Your task to perform on an android device: toggle notifications settings in the gmail app Image 0: 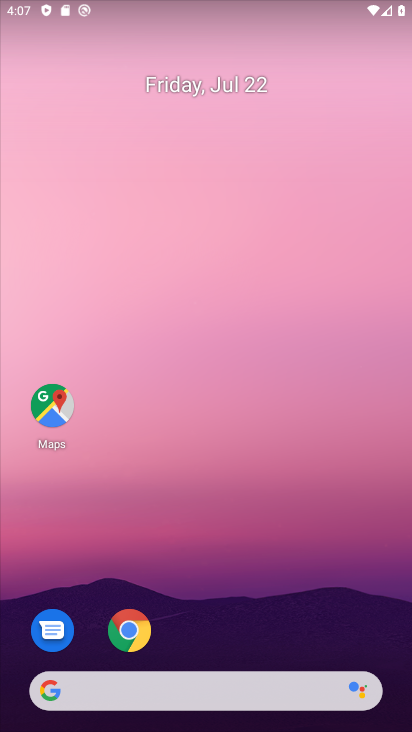
Step 0: drag from (187, 638) to (283, 53)
Your task to perform on an android device: toggle notifications settings in the gmail app Image 1: 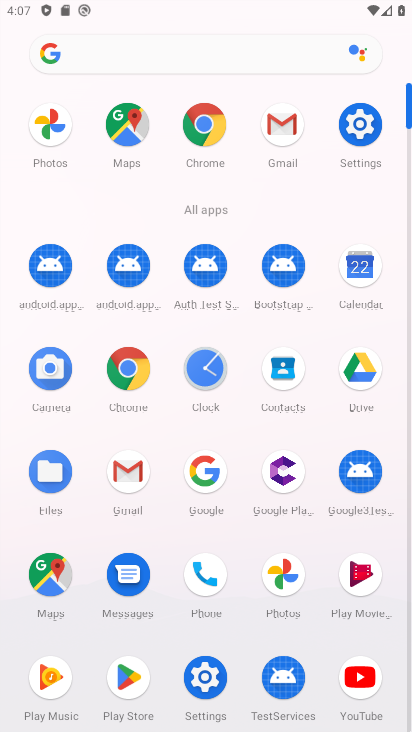
Step 1: click (275, 123)
Your task to perform on an android device: toggle notifications settings in the gmail app Image 2: 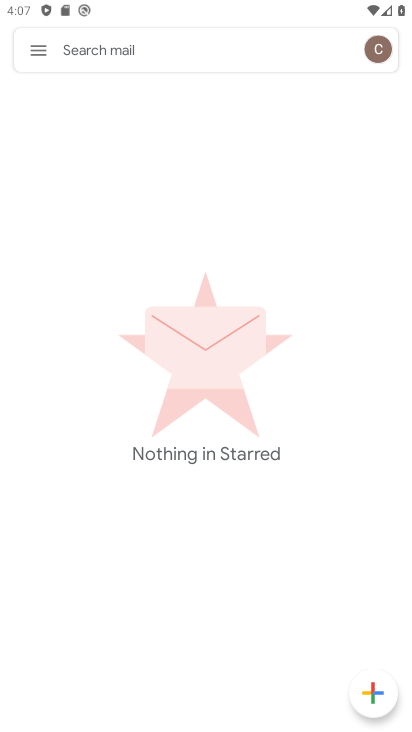
Step 2: click (35, 48)
Your task to perform on an android device: toggle notifications settings in the gmail app Image 3: 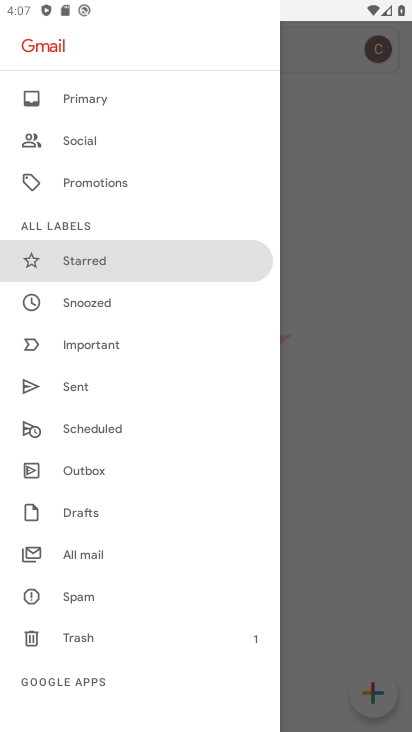
Step 3: drag from (121, 519) to (119, 369)
Your task to perform on an android device: toggle notifications settings in the gmail app Image 4: 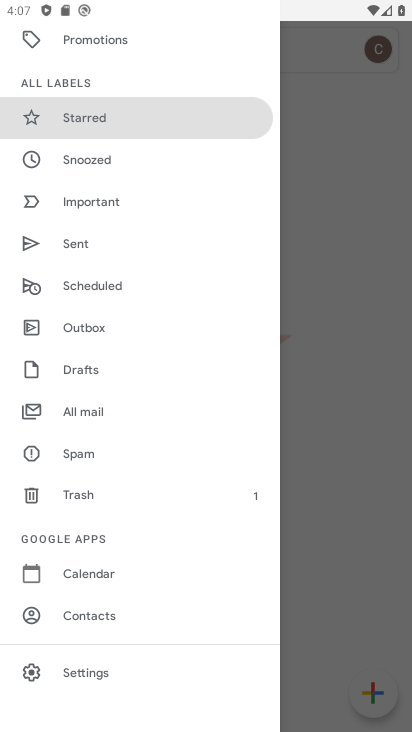
Step 4: click (92, 674)
Your task to perform on an android device: toggle notifications settings in the gmail app Image 5: 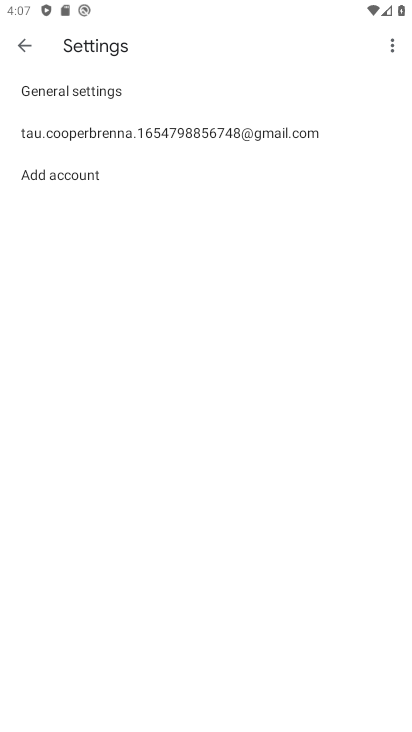
Step 5: click (191, 137)
Your task to perform on an android device: toggle notifications settings in the gmail app Image 6: 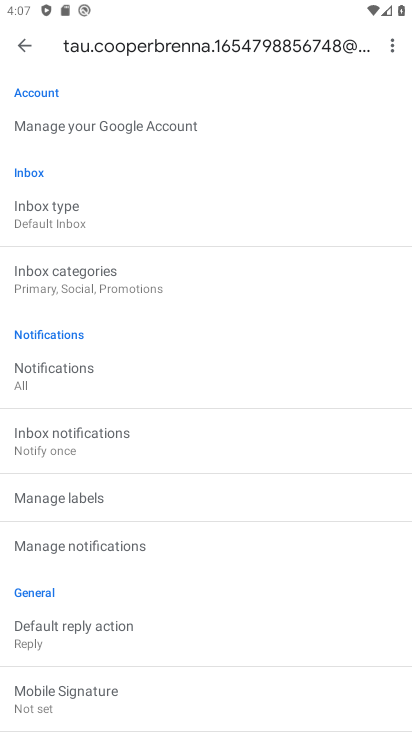
Step 6: click (75, 545)
Your task to perform on an android device: toggle notifications settings in the gmail app Image 7: 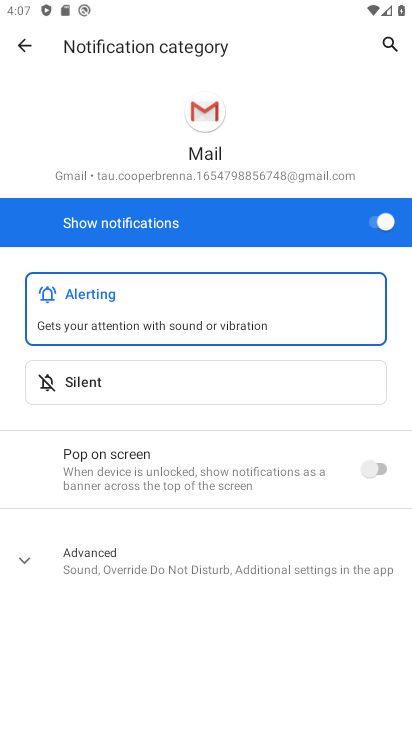
Step 7: click (373, 225)
Your task to perform on an android device: toggle notifications settings in the gmail app Image 8: 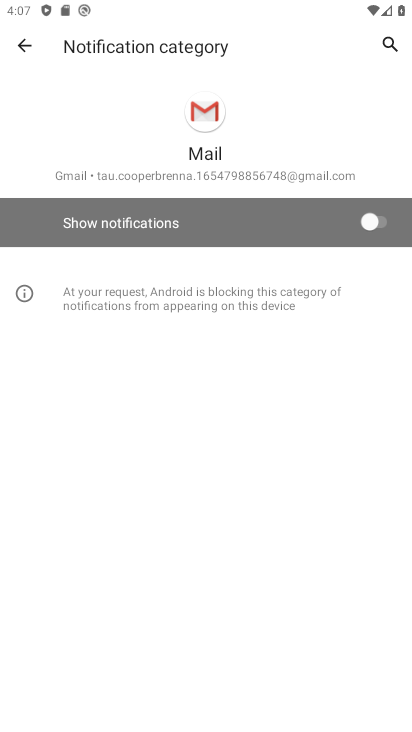
Step 8: task complete